Your task to perform on an android device: Search for the new Nike Air Max 270 on Nike.com Image 0: 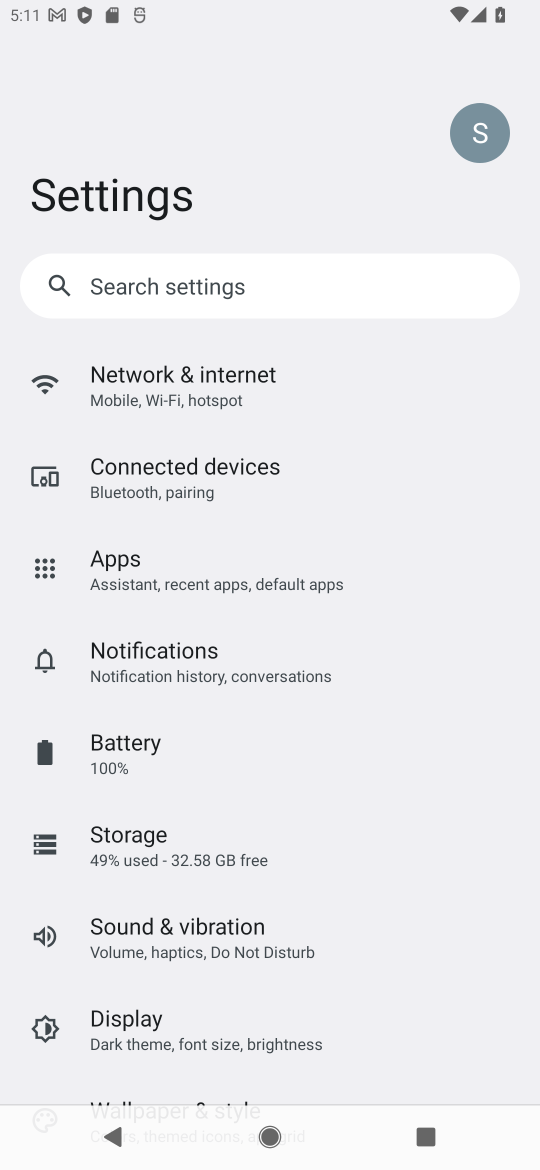
Step 0: press home button
Your task to perform on an android device: Search for the new Nike Air Max 270 on Nike.com Image 1: 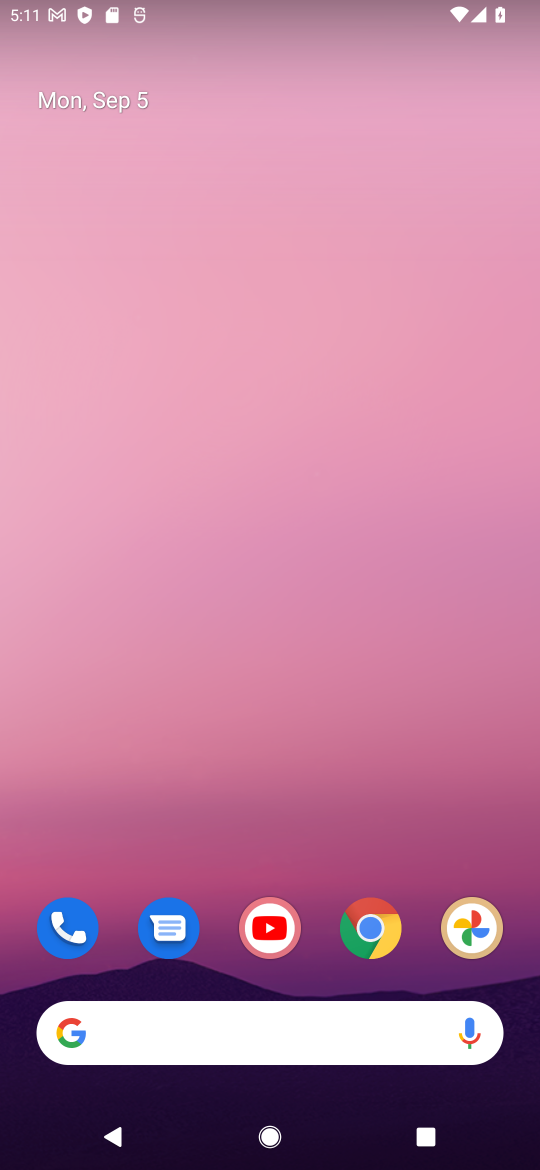
Step 1: click (366, 901)
Your task to perform on an android device: Search for the new Nike Air Max 270 on Nike.com Image 2: 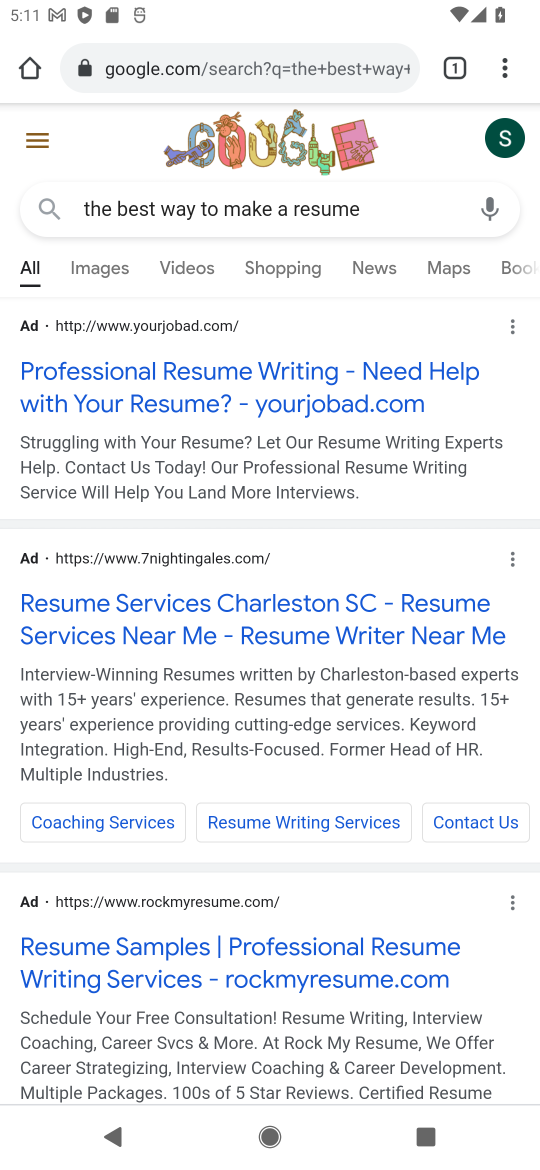
Step 2: click (322, 57)
Your task to perform on an android device: Search for the new Nike Air Max 270 on Nike.com Image 3: 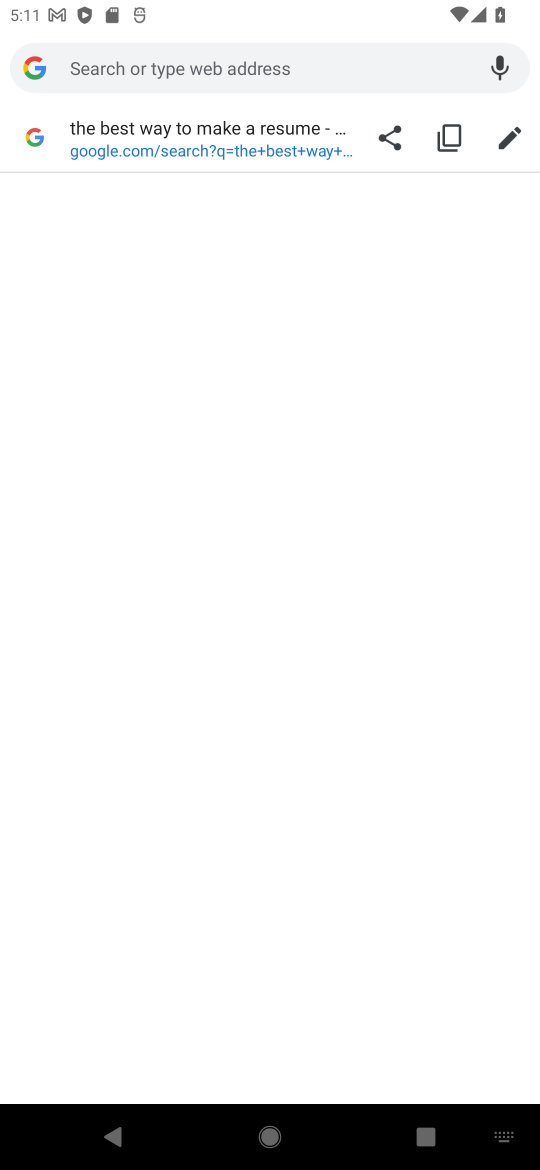
Step 3: type "nike.com"
Your task to perform on an android device: Search for the new Nike Air Max 270 on Nike.com Image 4: 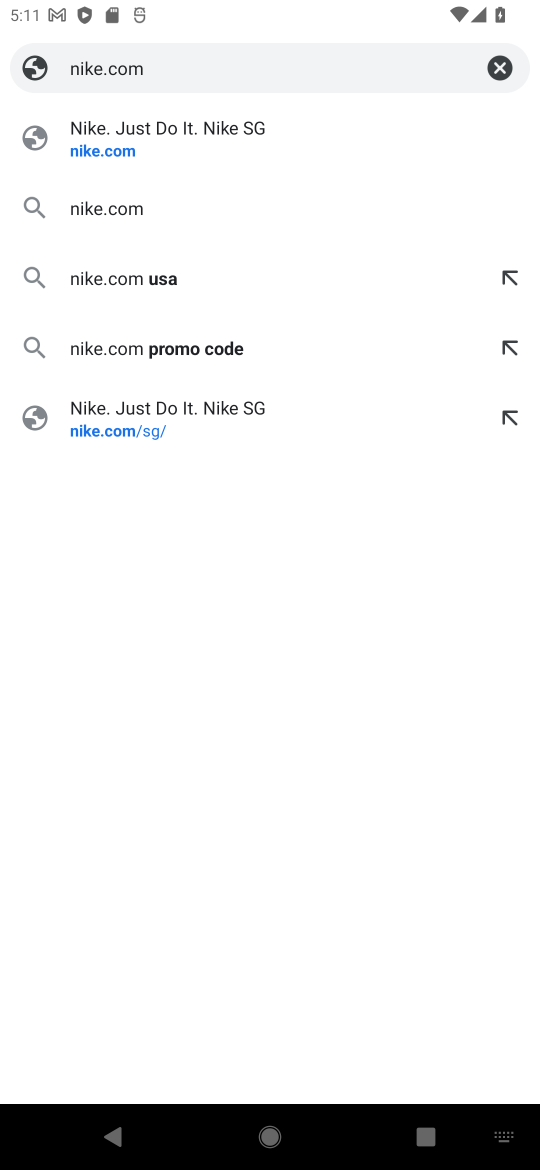
Step 4: click (127, 156)
Your task to perform on an android device: Search for the new Nike Air Max 270 on Nike.com Image 5: 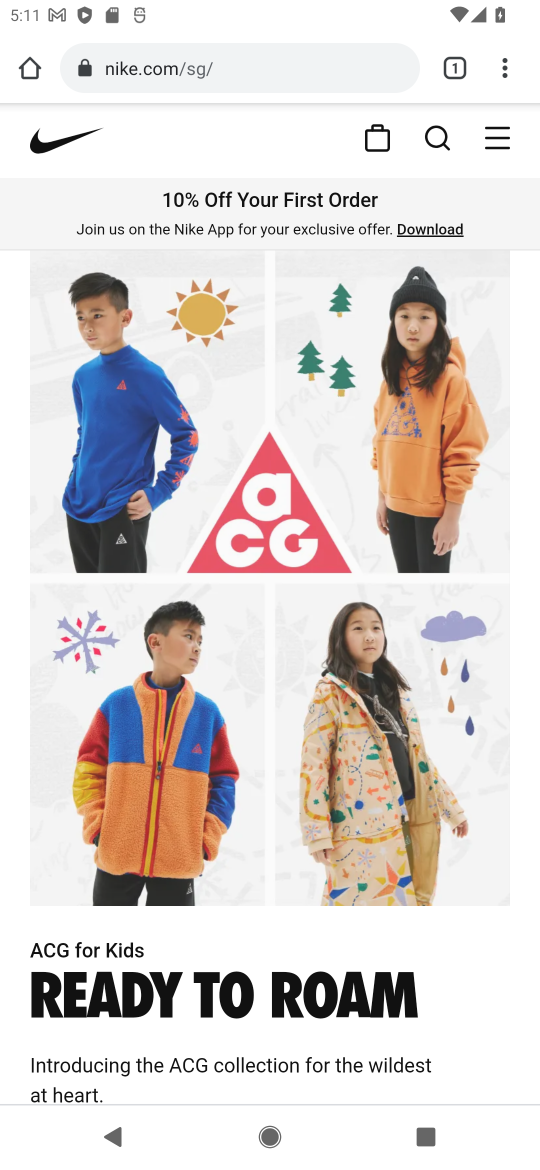
Step 5: click (433, 134)
Your task to perform on an android device: Search for the new Nike Air Max 270 on Nike.com Image 6: 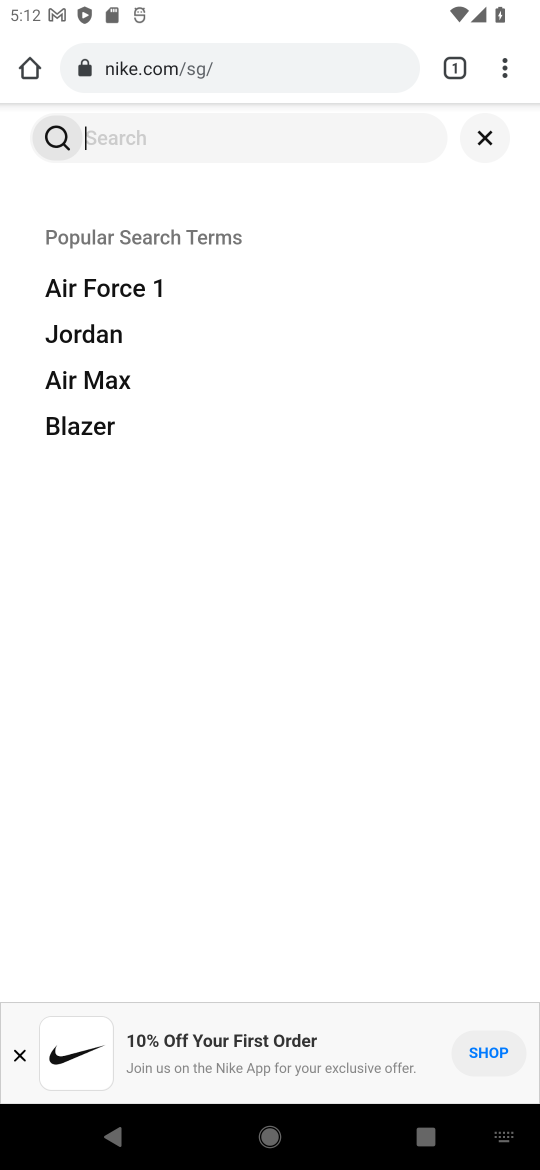
Step 6: type "the new Nike Air Max 270"
Your task to perform on an android device: Search for the new Nike Air Max 270 on Nike.com Image 7: 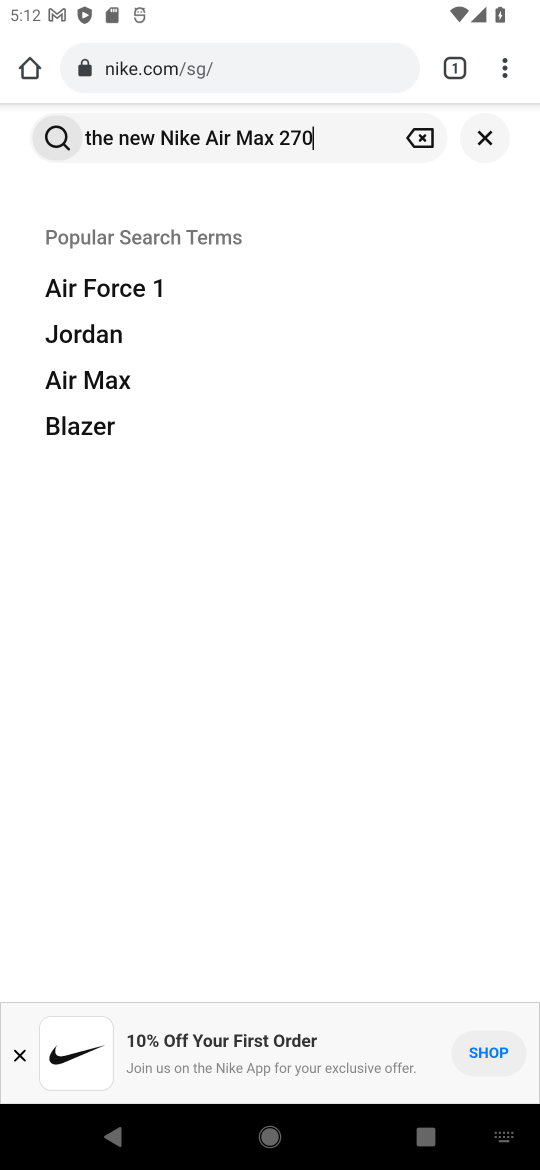
Step 7: click (55, 135)
Your task to perform on an android device: Search for the new Nike Air Max 270 on Nike.com Image 8: 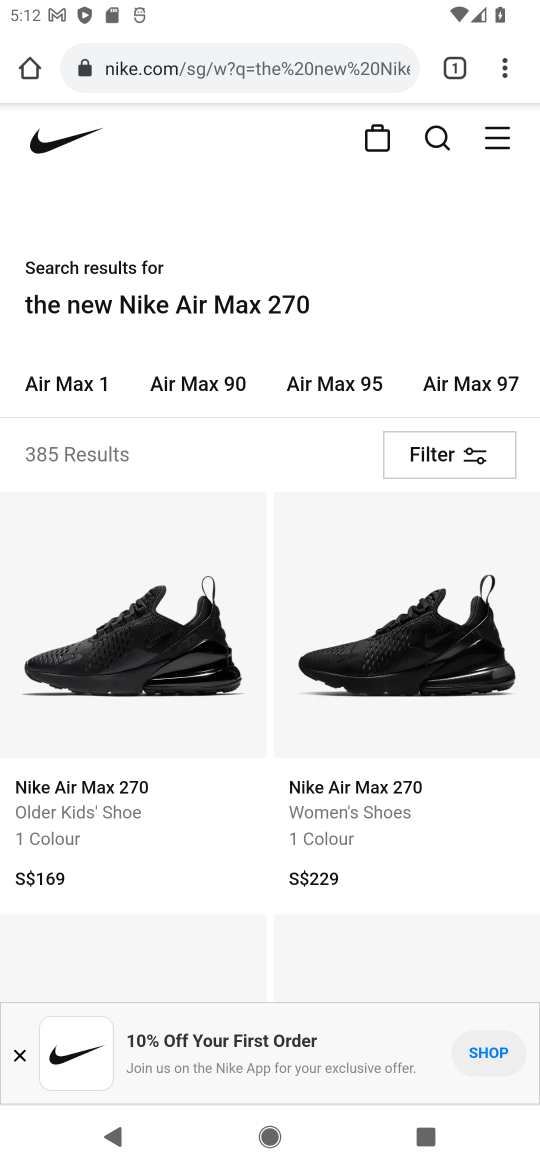
Step 8: task complete